Your task to perform on an android device: change the clock display to analog Image 0: 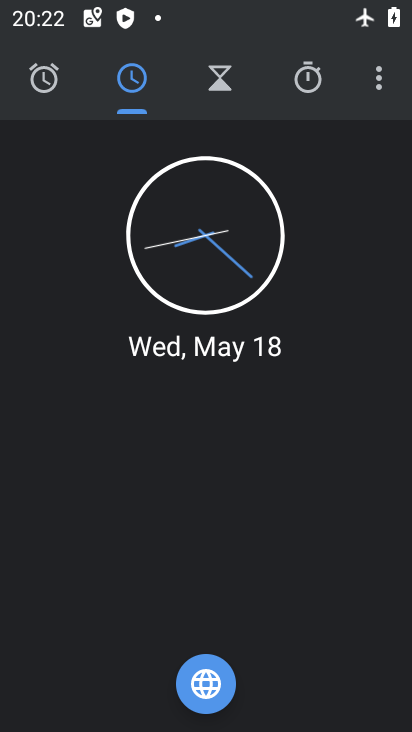
Step 0: press home button
Your task to perform on an android device: change the clock display to analog Image 1: 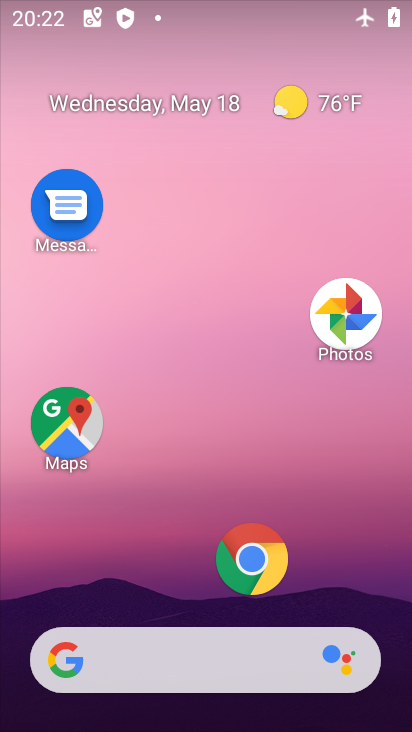
Step 1: drag from (203, 597) to (194, 50)
Your task to perform on an android device: change the clock display to analog Image 2: 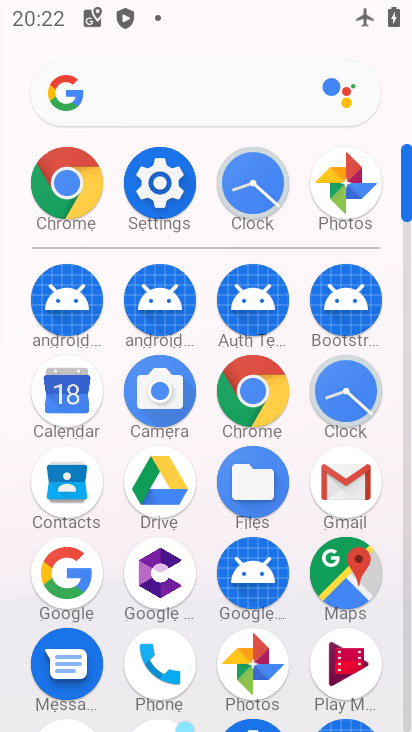
Step 2: click (360, 407)
Your task to perform on an android device: change the clock display to analog Image 3: 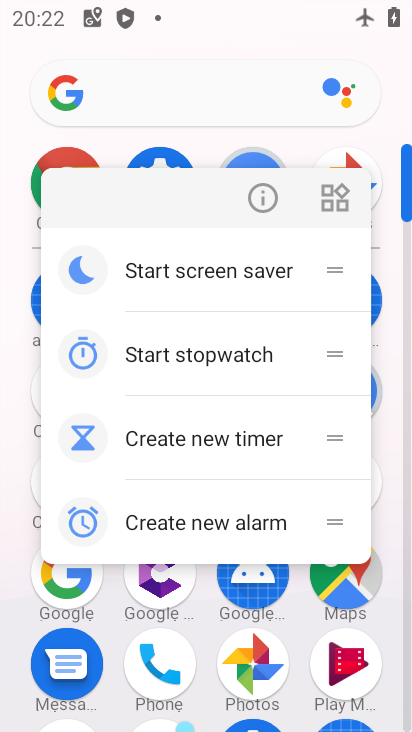
Step 3: click (376, 363)
Your task to perform on an android device: change the clock display to analog Image 4: 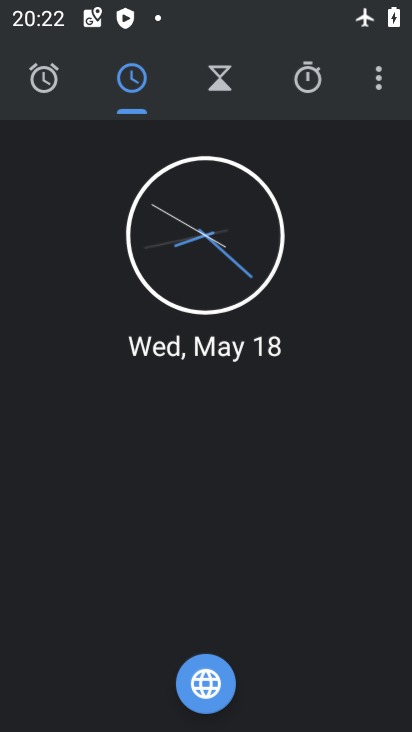
Step 4: click (363, 370)
Your task to perform on an android device: change the clock display to analog Image 5: 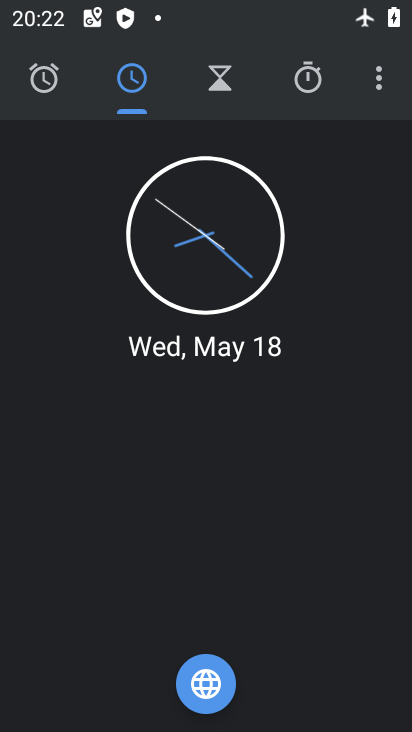
Step 5: click (386, 83)
Your task to perform on an android device: change the clock display to analog Image 6: 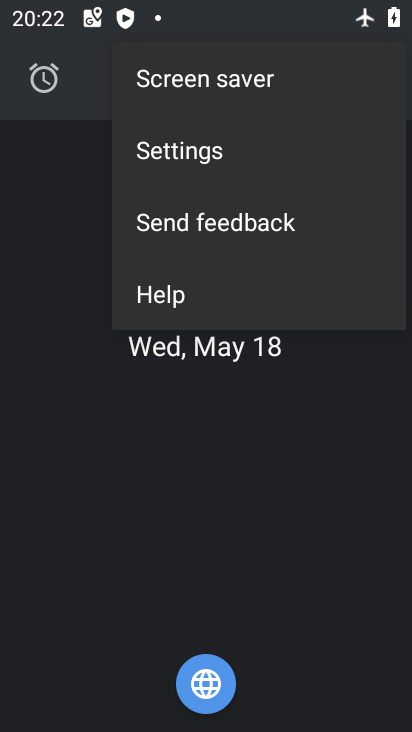
Step 6: click (207, 125)
Your task to perform on an android device: change the clock display to analog Image 7: 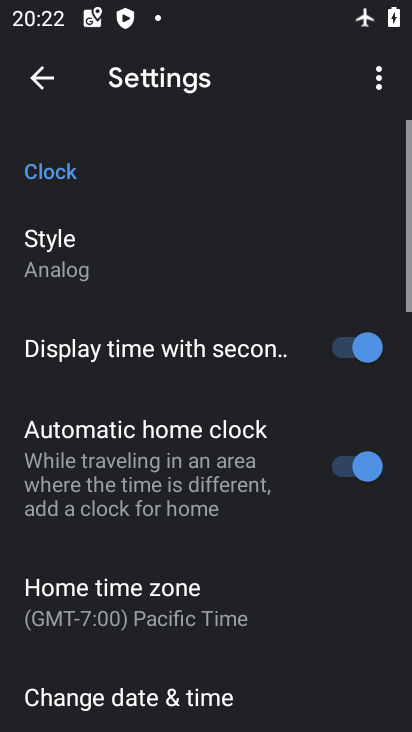
Step 7: click (130, 239)
Your task to perform on an android device: change the clock display to analog Image 8: 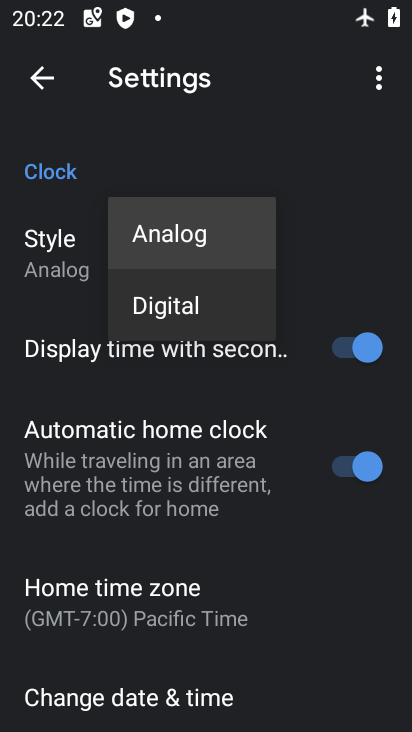
Step 8: click (131, 239)
Your task to perform on an android device: change the clock display to analog Image 9: 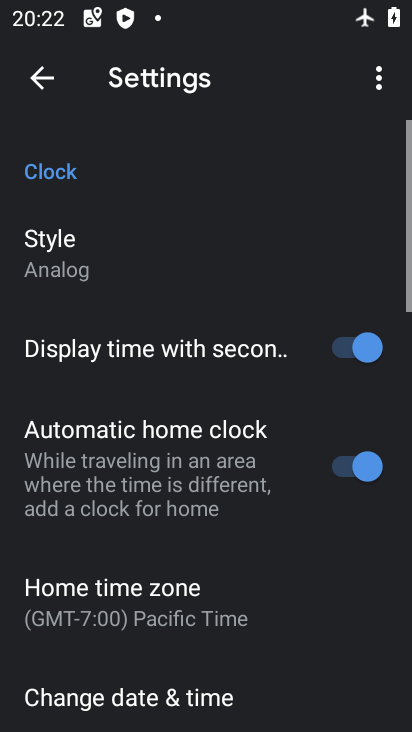
Step 9: task complete